Your task to perform on an android device: delete the emails in spam in the gmail app Image 0: 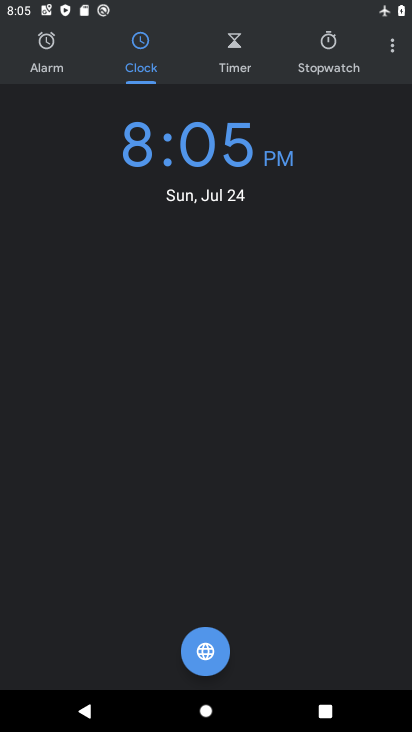
Step 0: press home button
Your task to perform on an android device: delete the emails in spam in the gmail app Image 1: 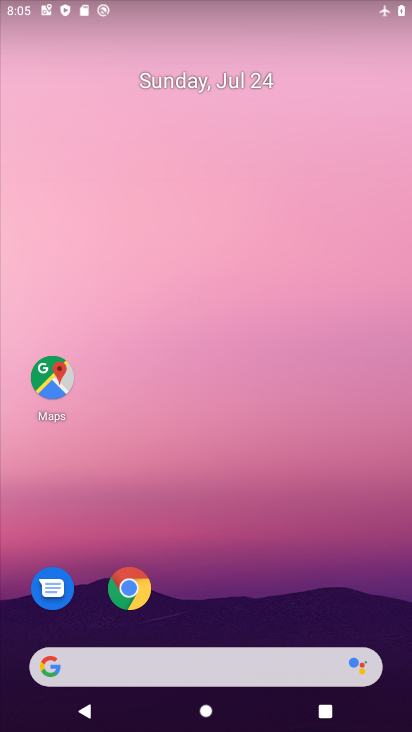
Step 1: drag from (308, 587) to (290, 103)
Your task to perform on an android device: delete the emails in spam in the gmail app Image 2: 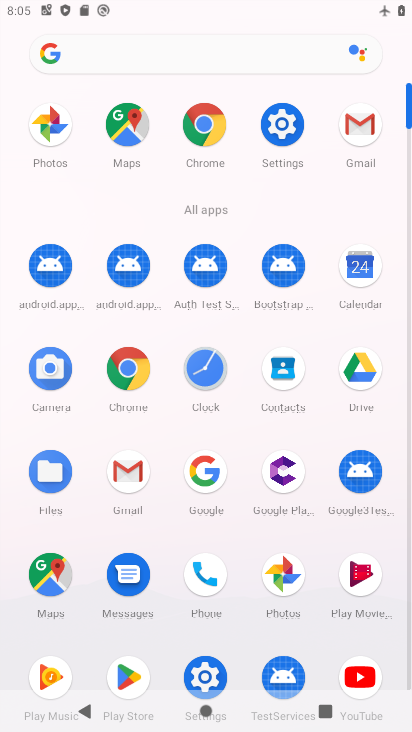
Step 2: click (352, 122)
Your task to perform on an android device: delete the emails in spam in the gmail app Image 3: 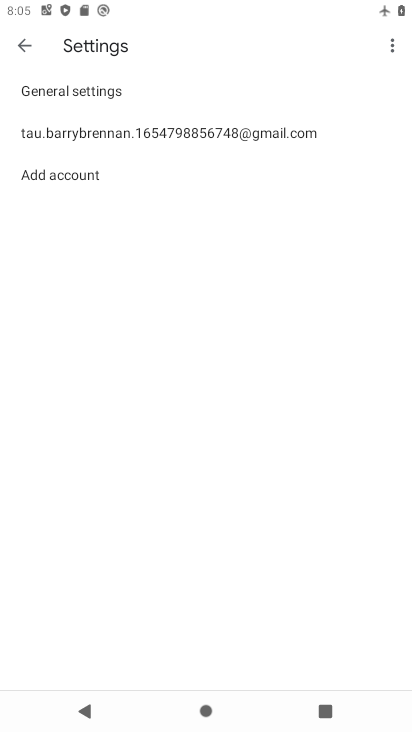
Step 3: click (27, 46)
Your task to perform on an android device: delete the emails in spam in the gmail app Image 4: 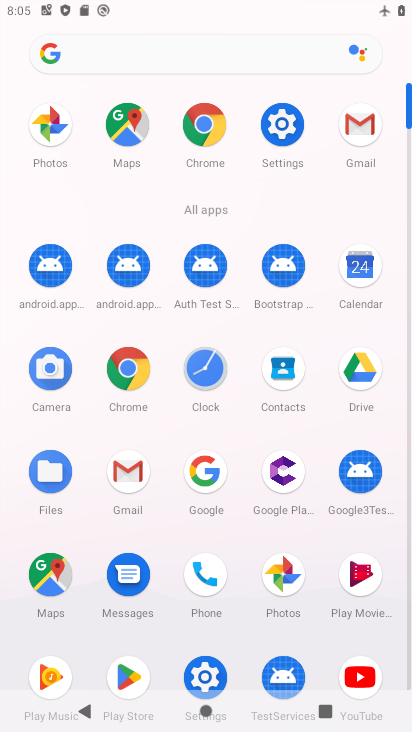
Step 4: click (366, 125)
Your task to perform on an android device: delete the emails in spam in the gmail app Image 5: 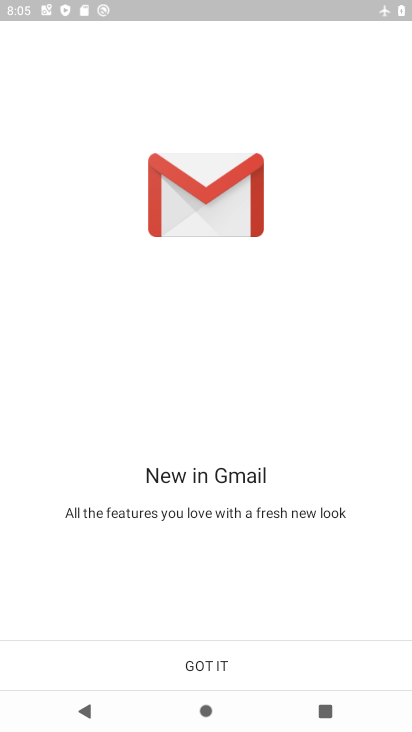
Step 5: click (258, 667)
Your task to perform on an android device: delete the emails in spam in the gmail app Image 6: 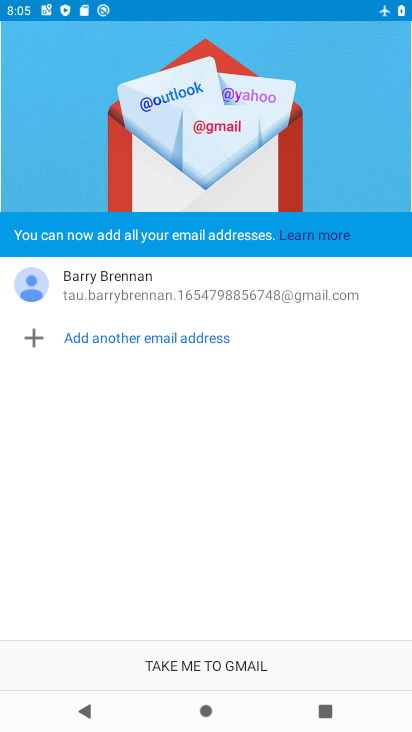
Step 6: click (258, 667)
Your task to perform on an android device: delete the emails in spam in the gmail app Image 7: 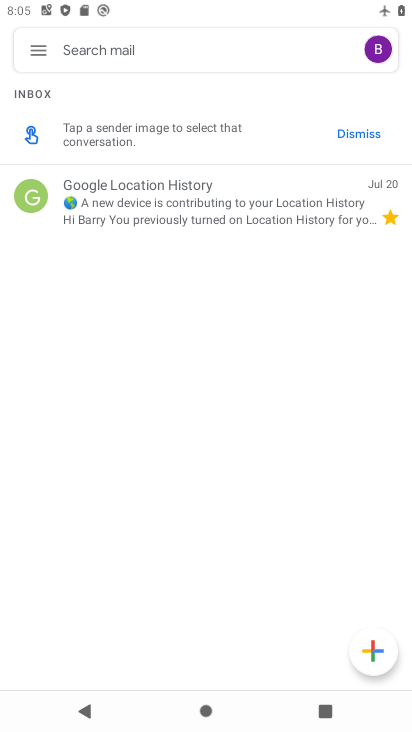
Step 7: click (45, 49)
Your task to perform on an android device: delete the emails in spam in the gmail app Image 8: 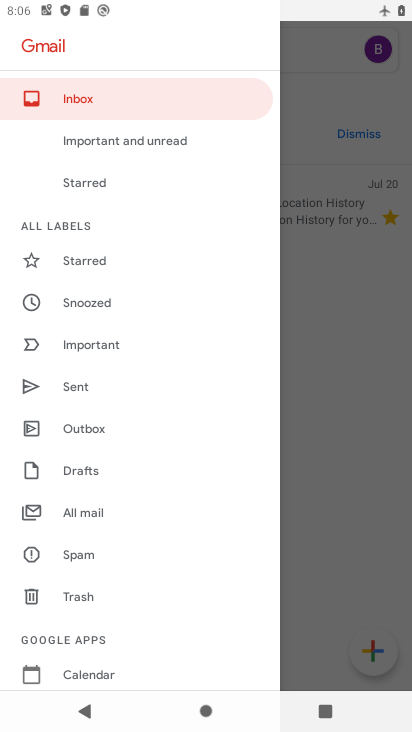
Step 8: click (76, 555)
Your task to perform on an android device: delete the emails in spam in the gmail app Image 9: 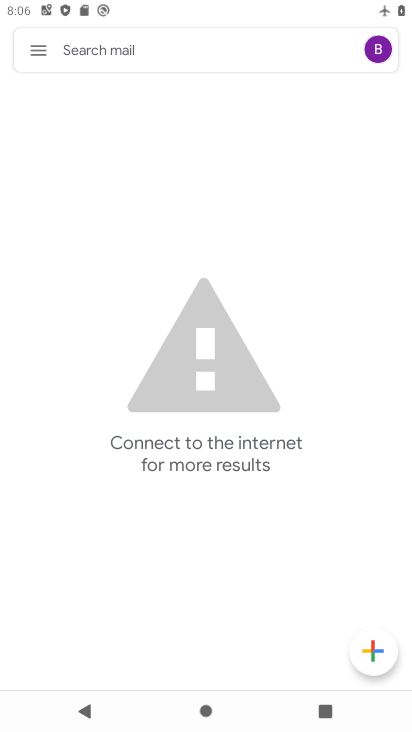
Step 9: task complete